Your task to perform on an android device: toggle notifications settings in the gmail app Image 0: 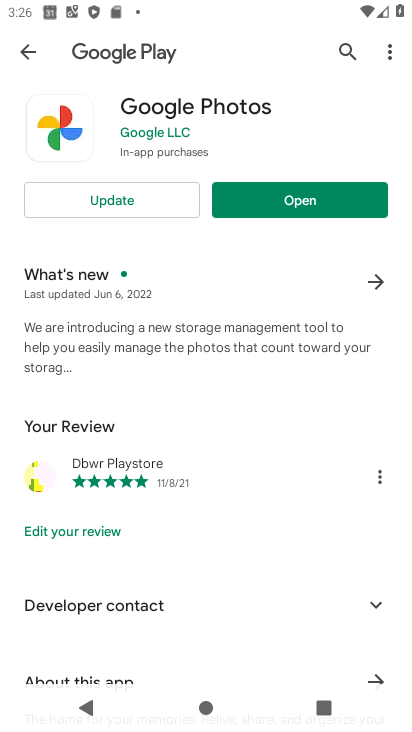
Step 0: press home button
Your task to perform on an android device: toggle notifications settings in the gmail app Image 1: 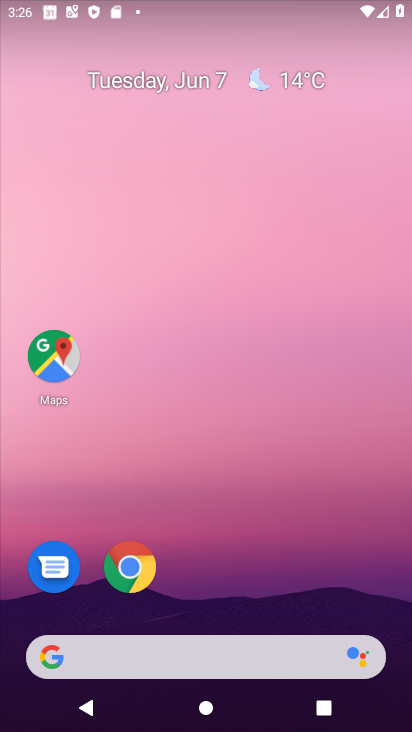
Step 1: drag from (213, 588) to (205, 188)
Your task to perform on an android device: toggle notifications settings in the gmail app Image 2: 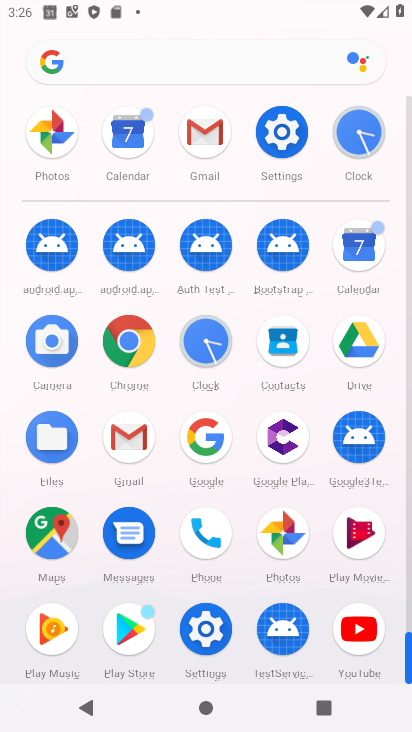
Step 2: click (201, 137)
Your task to perform on an android device: toggle notifications settings in the gmail app Image 3: 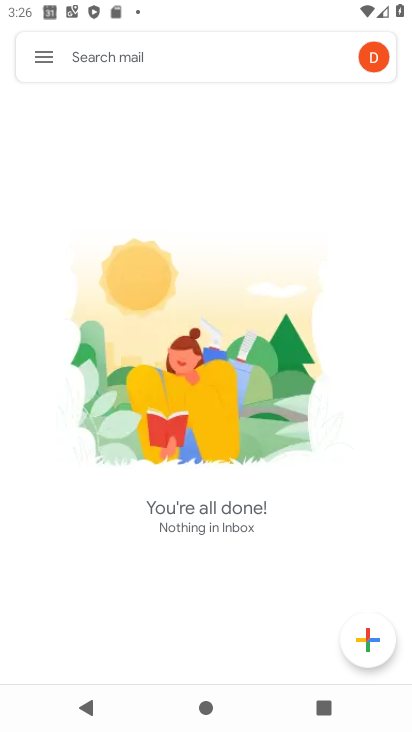
Step 3: click (34, 62)
Your task to perform on an android device: toggle notifications settings in the gmail app Image 4: 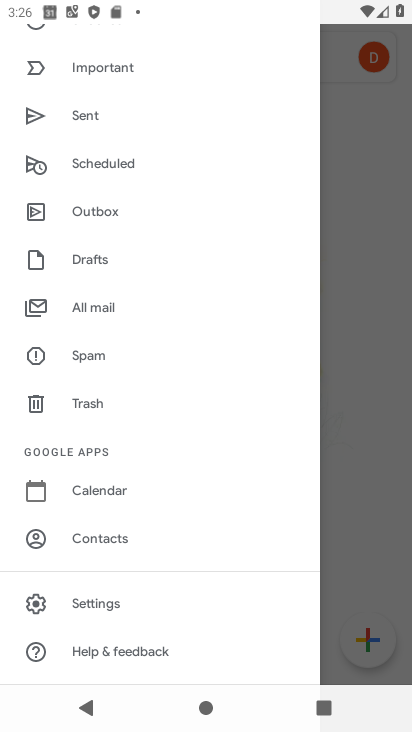
Step 4: click (120, 609)
Your task to perform on an android device: toggle notifications settings in the gmail app Image 5: 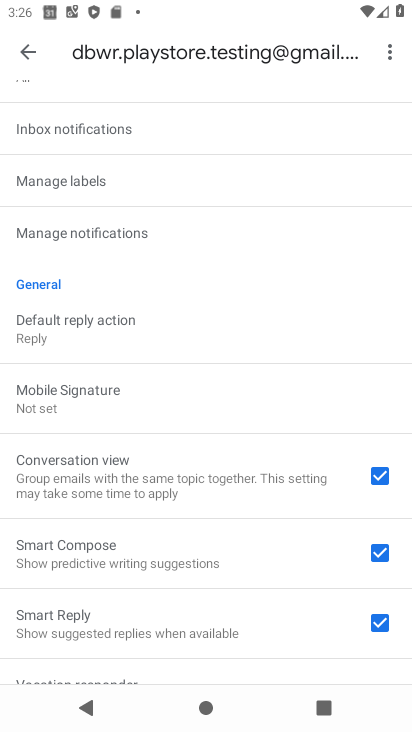
Step 5: click (118, 241)
Your task to perform on an android device: toggle notifications settings in the gmail app Image 6: 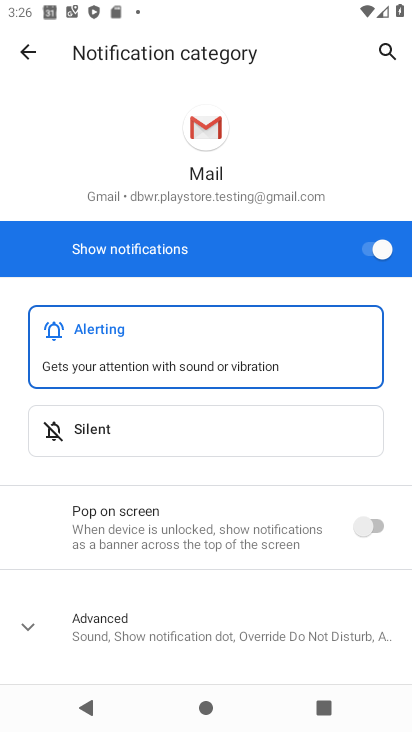
Step 6: drag from (246, 593) to (250, 277)
Your task to perform on an android device: toggle notifications settings in the gmail app Image 7: 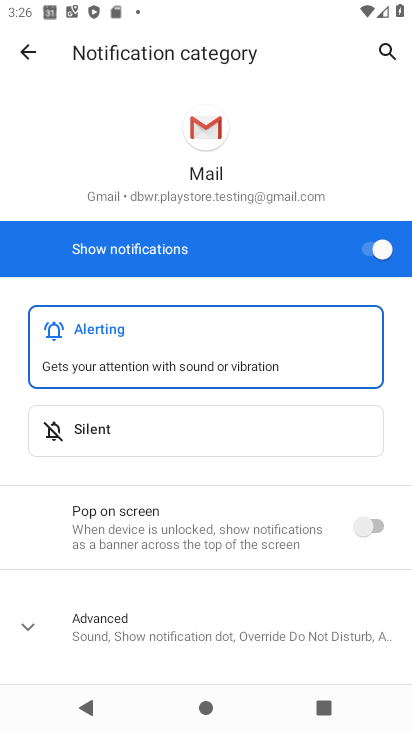
Step 7: drag from (224, 569) to (221, 233)
Your task to perform on an android device: toggle notifications settings in the gmail app Image 8: 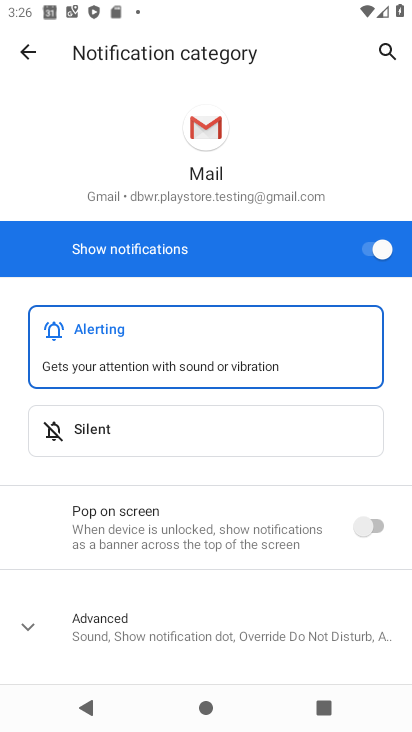
Step 8: click (366, 223)
Your task to perform on an android device: toggle notifications settings in the gmail app Image 9: 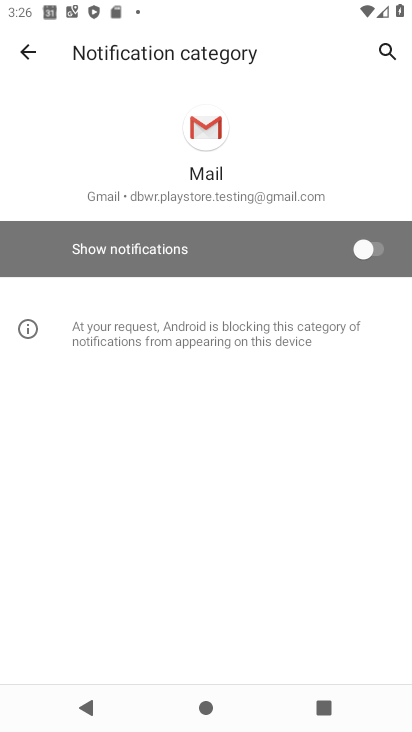
Step 9: task complete